Your task to perform on an android device: Go to privacy settings Image 0: 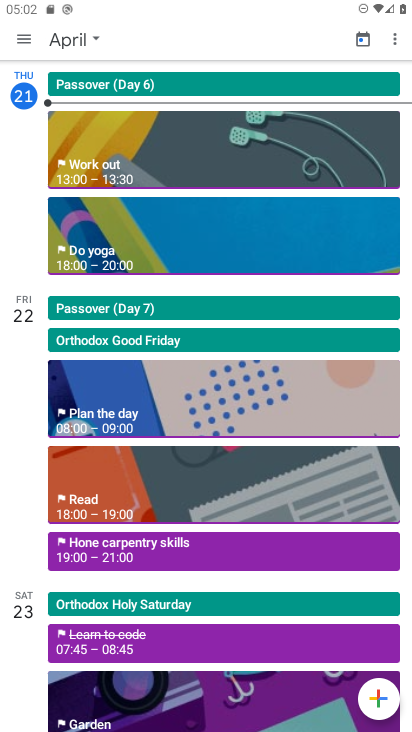
Step 0: press home button
Your task to perform on an android device: Go to privacy settings Image 1: 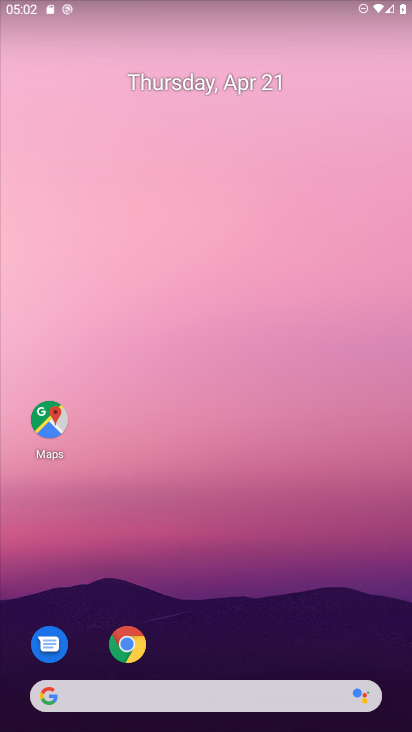
Step 1: drag from (271, 622) to (284, 54)
Your task to perform on an android device: Go to privacy settings Image 2: 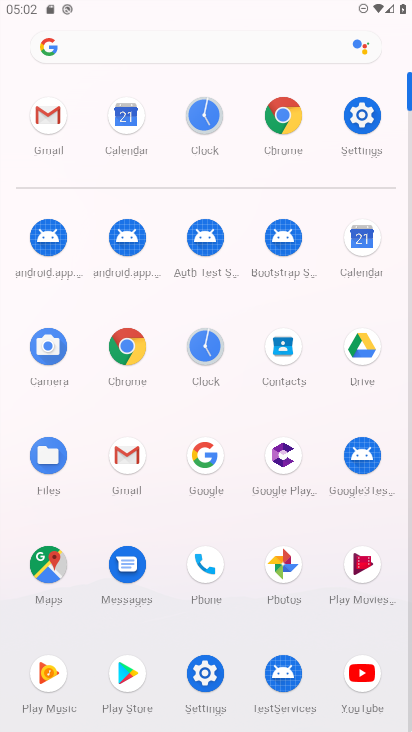
Step 2: click (357, 121)
Your task to perform on an android device: Go to privacy settings Image 3: 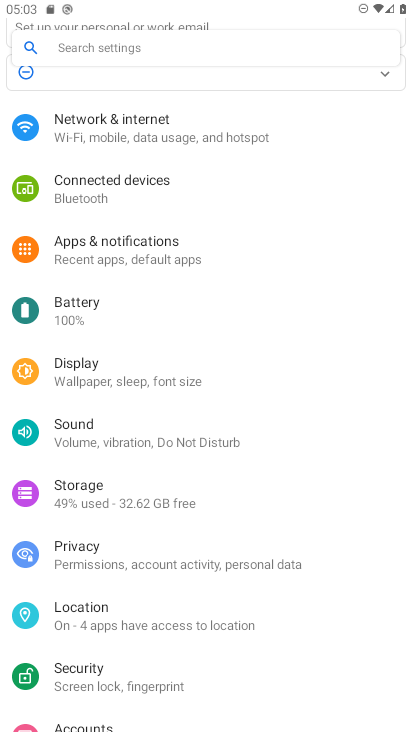
Step 3: drag from (203, 612) to (245, 193)
Your task to perform on an android device: Go to privacy settings Image 4: 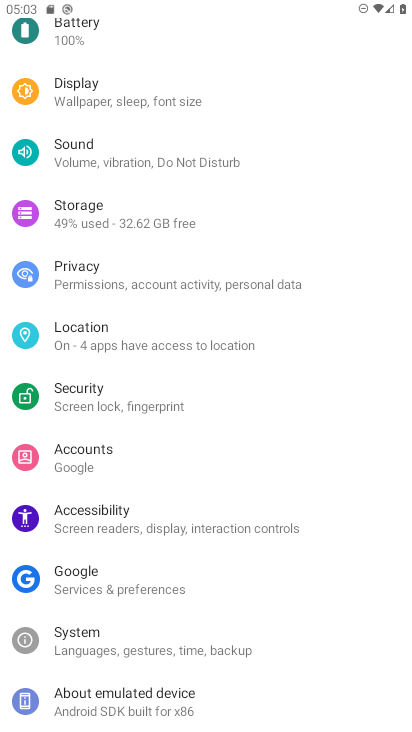
Step 4: click (111, 270)
Your task to perform on an android device: Go to privacy settings Image 5: 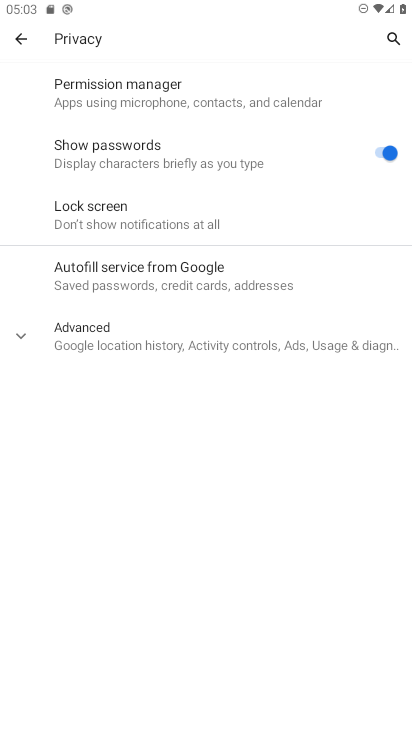
Step 5: task complete